Your task to perform on an android device: Clear the cart on costco. Image 0: 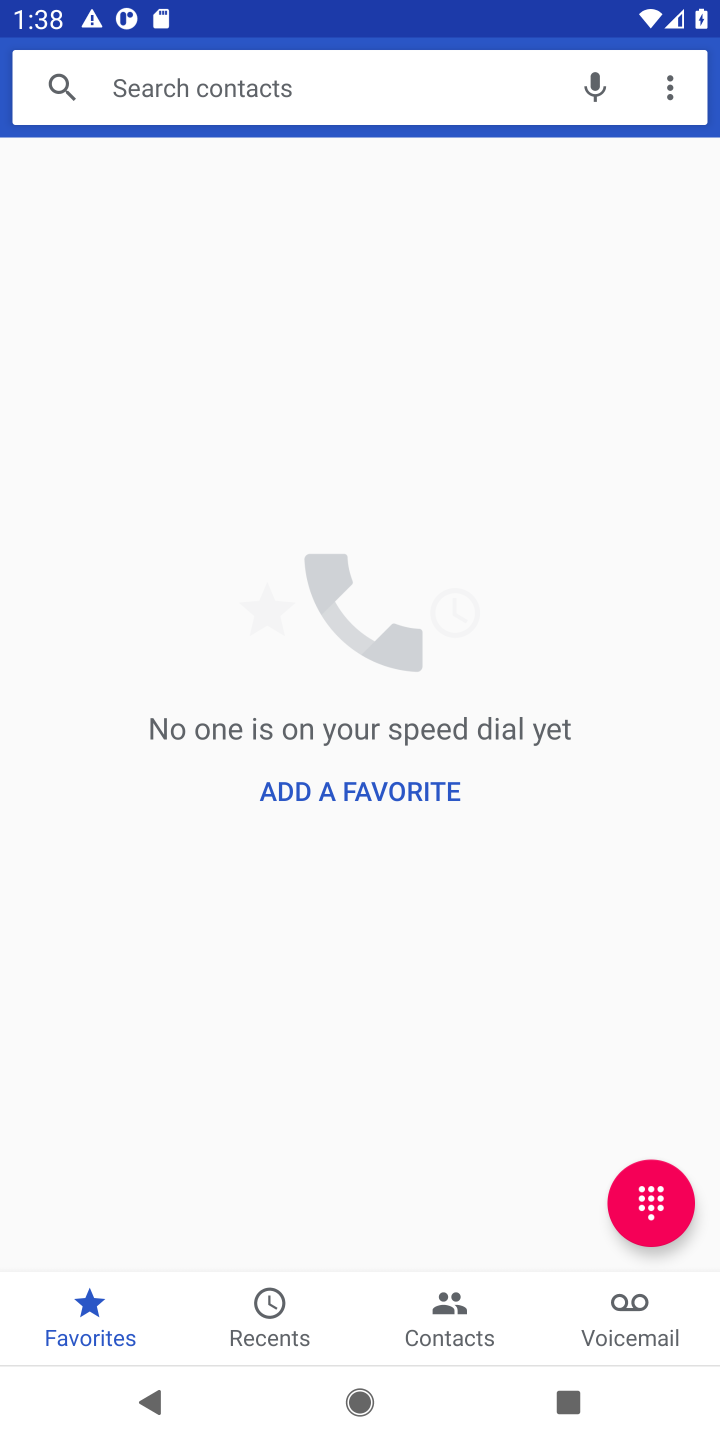
Step 0: task complete